Your task to perform on an android device: Open Maps and search for coffee Image 0: 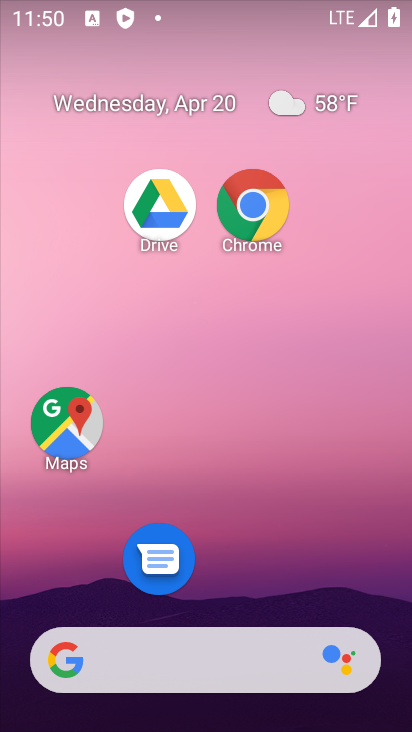
Step 0: drag from (331, 622) to (333, 20)
Your task to perform on an android device: Open Maps and search for coffee Image 1: 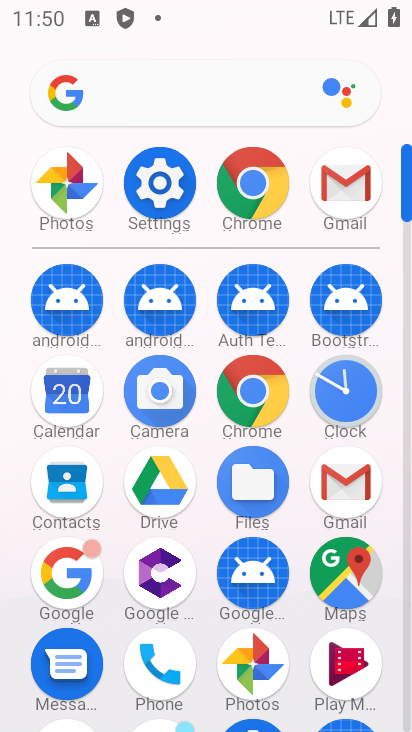
Step 1: click (341, 578)
Your task to perform on an android device: Open Maps and search for coffee Image 2: 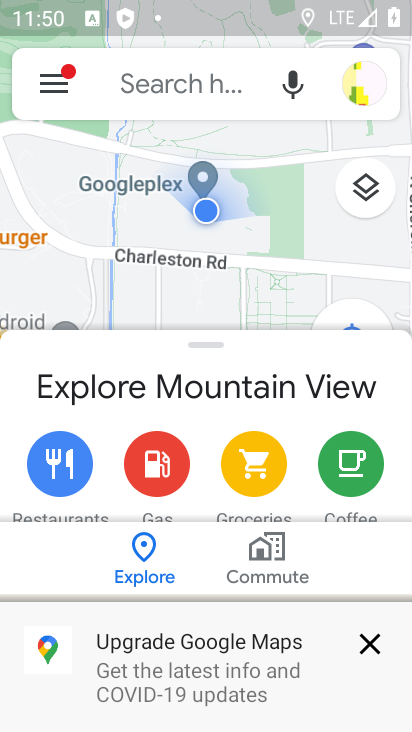
Step 2: click (363, 643)
Your task to perform on an android device: Open Maps and search for coffee Image 3: 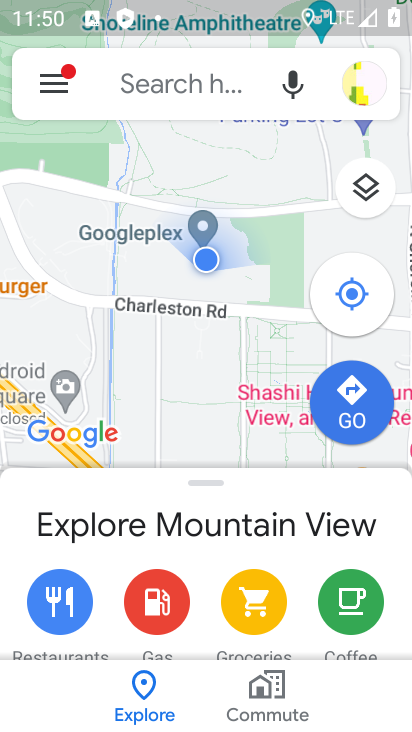
Step 3: click (201, 76)
Your task to perform on an android device: Open Maps and search for coffee Image 4: 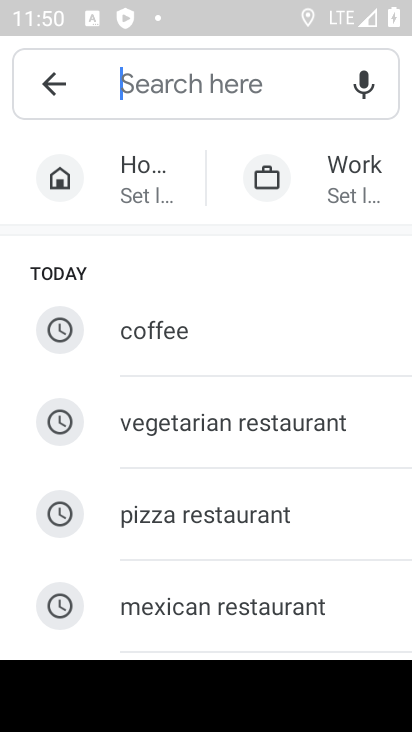
Step 4: type "coffee"
Your task to perform on an android device: Open Maps and search for coffee Image 5: 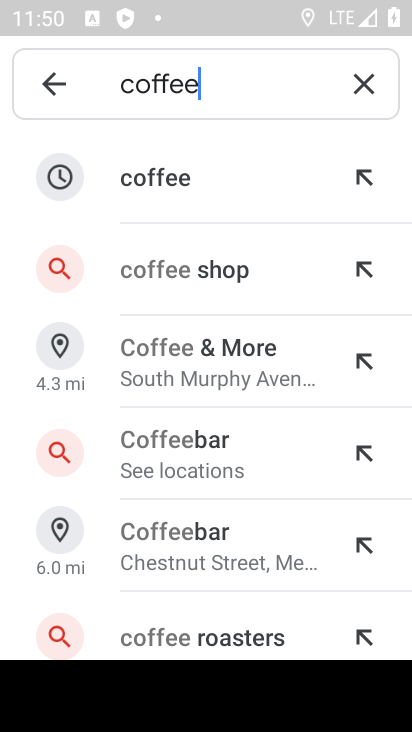
Step 5: click (247, 206)
Your task to perform on an android device: Open Maps and search for coffee Image 6: 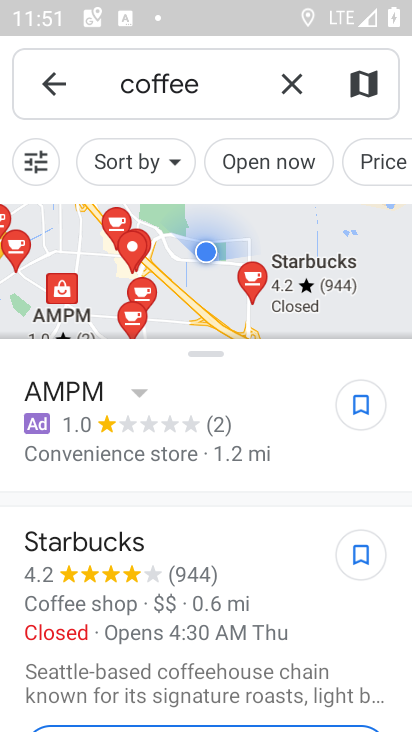
Step 6: task complete